Your task to perform on an android device: Search for sushi restaurants on Maps Image 0: 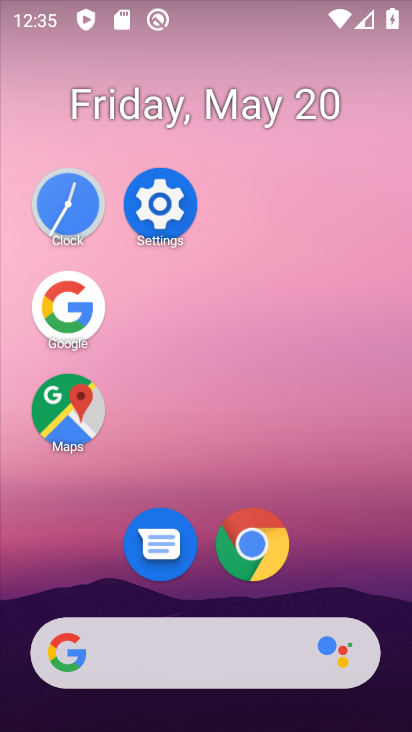
Step 0: click (60, 409)
Your task to perform on an android device: Search for sushi restaurants on Maps Image 1: 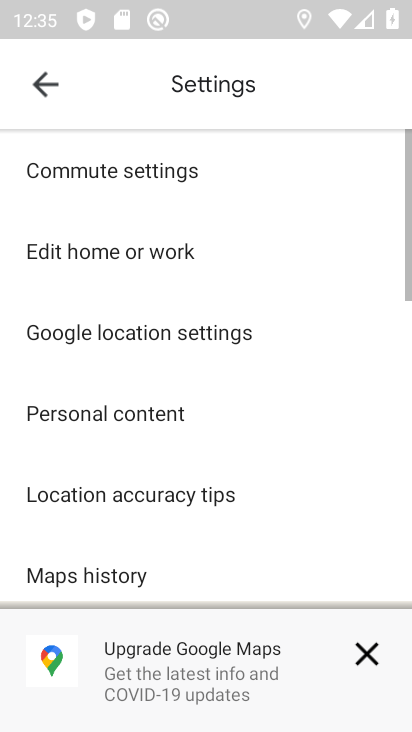
Step 1: click (23, 75)
Your task to perform on an android device: Search for sushi restaurants on Maps Image 2: 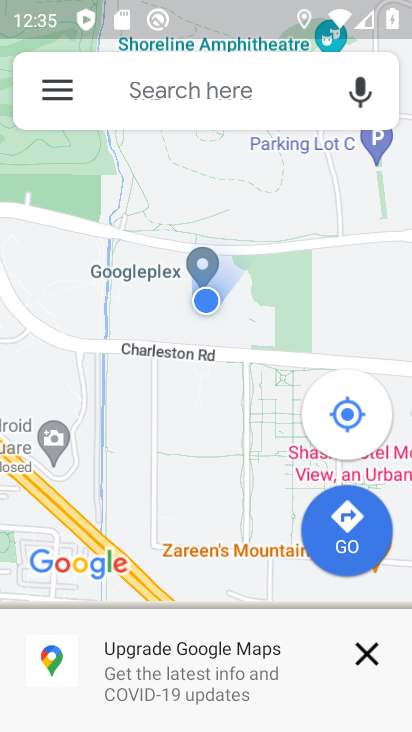
Step 2: click (173, 106)
Your task to perform on an android device: Search for sushi restaurants on Maps Image 3: 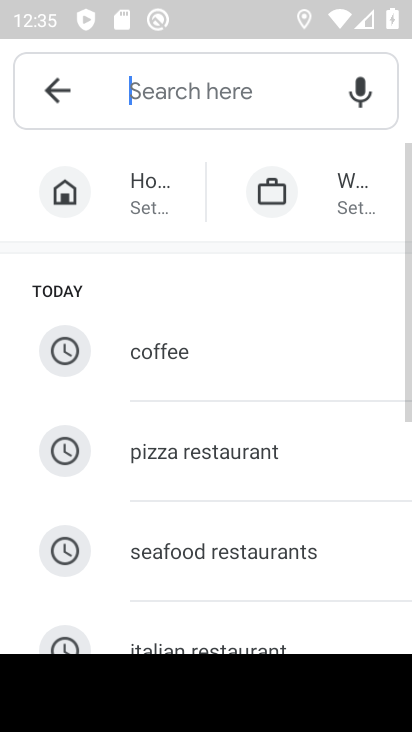
Step 3: drag from (188, 503) to (192, 193)
Your task to perform on an android device: Search for sushi restaurants on Maps Image 4: 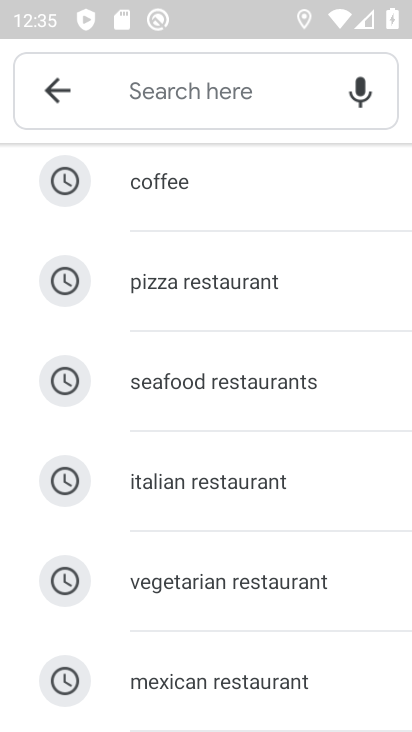
Step 4: drag from (223, 664) to (213, 307)
Your task to perform on an android device: Search for sushi restaurants on Maps Image 5: 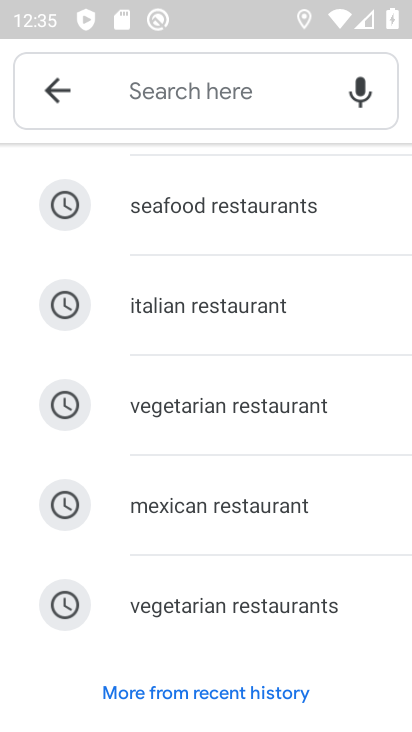
Step 5: click (179, 95)
Your task to perform on an android device: Search for sushi restaurants on Maps Image 6: 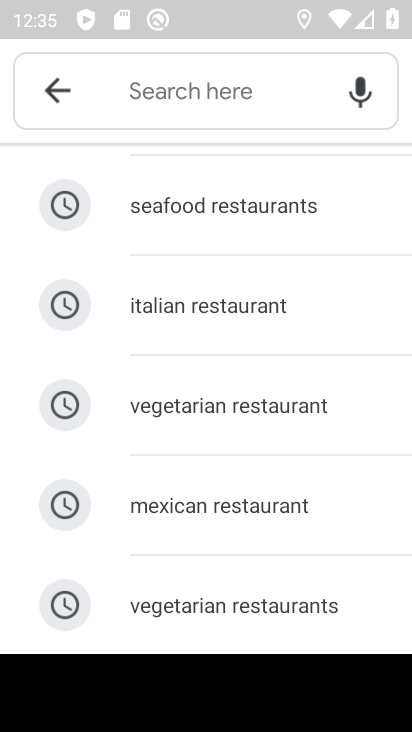
Step 6: type "sushi restaurants"
Your task to perform on an android device: Search for sushi restaurants on Maps Image 7: 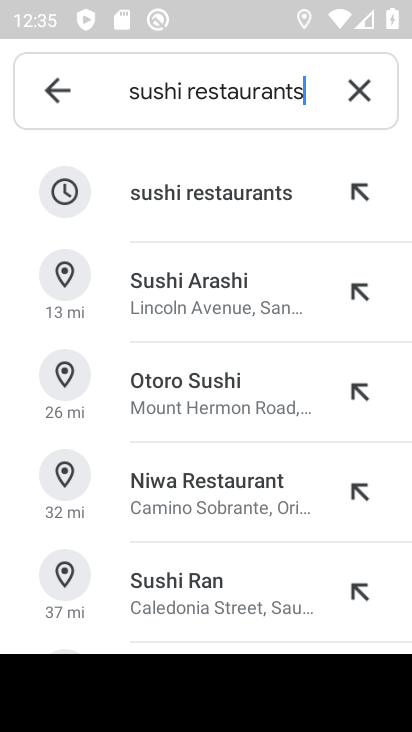
Step 7: task complete